Your task to perform on an android device: Open Reddit.com Image 0: 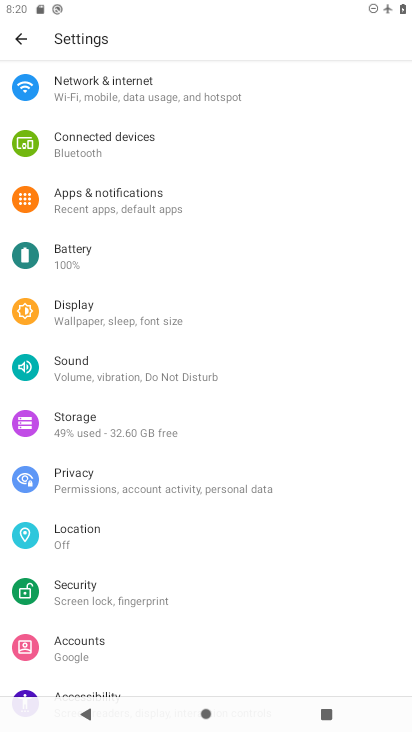
Step 0: press home button
Your task to perform on an android device: Open Reddit.com Image 1: 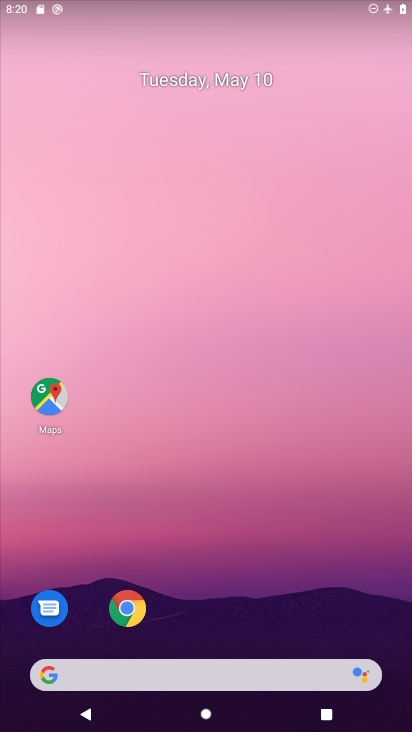
Step 1: drag from (265, 618) to (273, 265)
Your task to perform on an android device: Open Reddit.com Image 2: 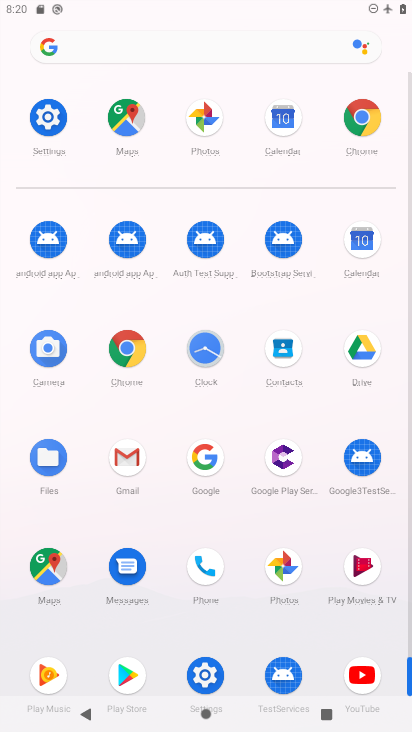
Step 2: click (136, 349)
Your task to perform on an android device: Open Reddit.com Image 3: 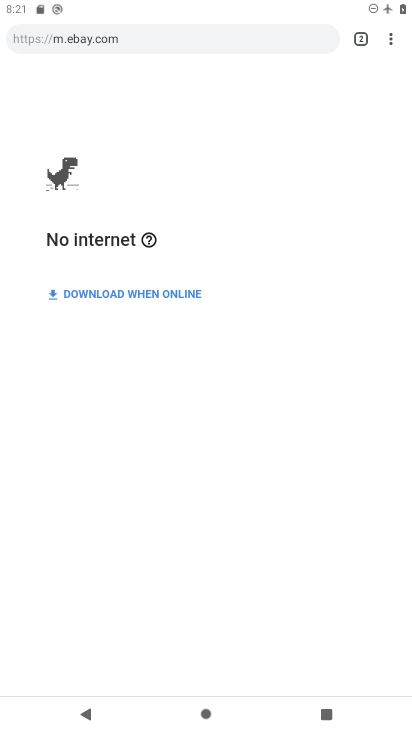
Step 3: click (207, 31)
Your task to perform on an android device: Open Reddit.com Image 4: 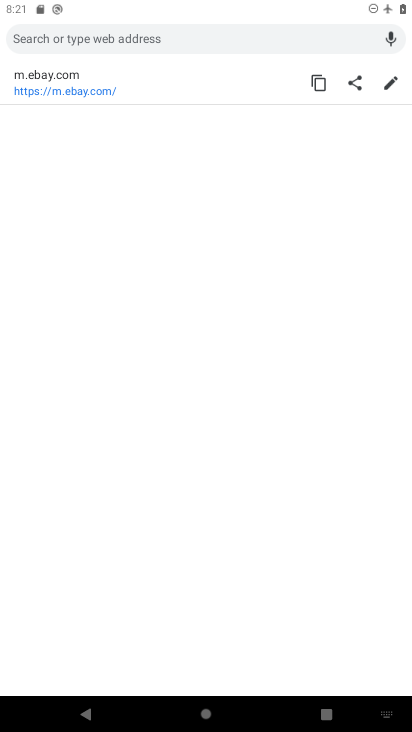
Step 4: click (219, 35)
Your task to perform on an android device: Open Reddit.com Image 5: 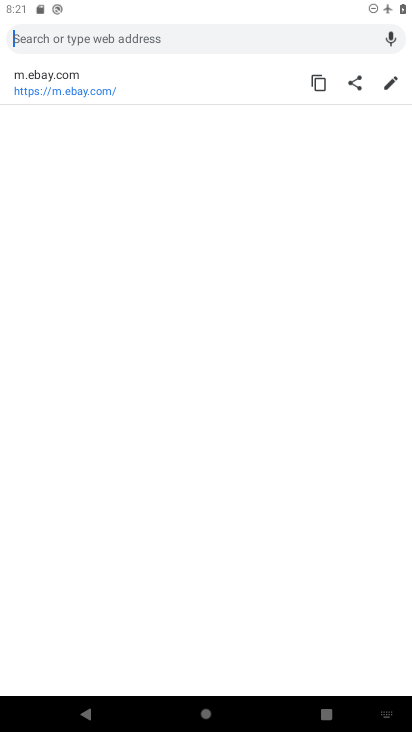
Step 5: type " Reddit.com"
Your task to perform on an android device: Open Reddit.com Image 6: 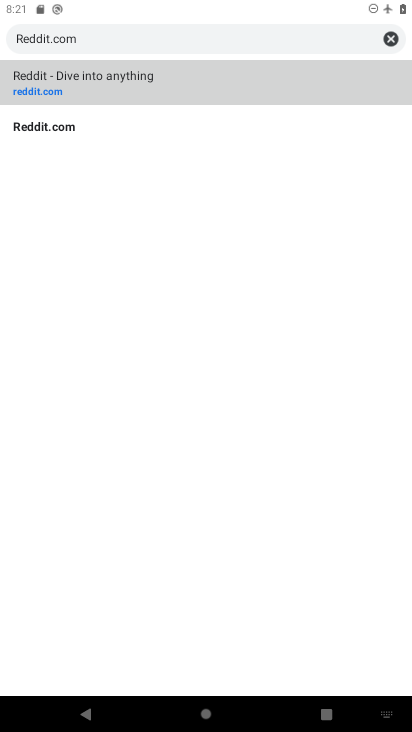
Step 6: click (38, 125)
Your task to perform on an android device: Open Reddit.com Image 7: 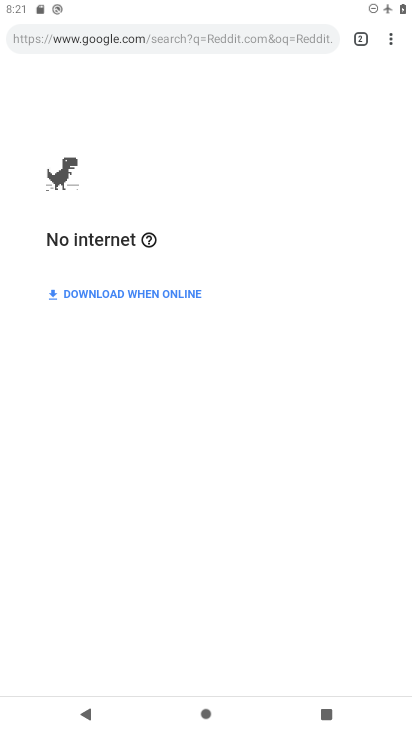
Step 7: task complete